Your task to perform on an android device: Turn off the flashlight Image 0: 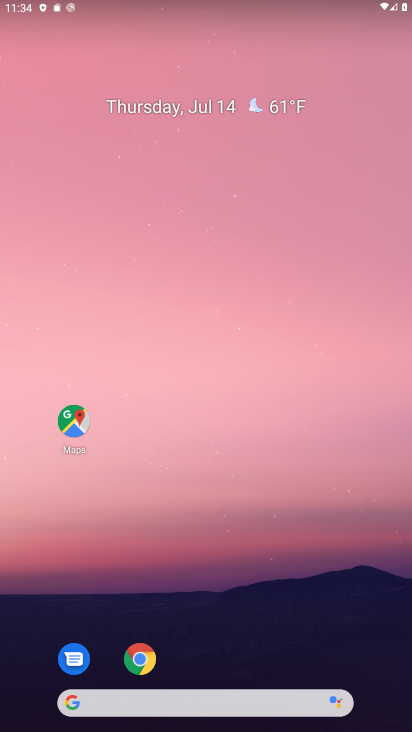
Step 0: drag from (190, 702) to (232, 122)
Your task to perform on an android device: Turn off the flashlight Image 1: 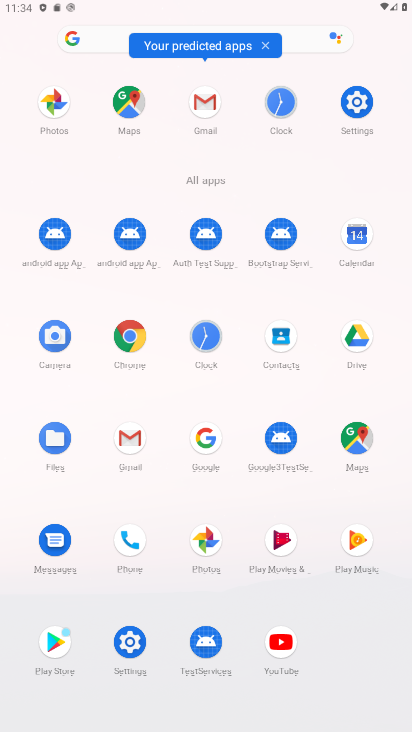
Step 1: click (357, 100)
Your task to perform on an android device: Turn off the flashlight Image 2: 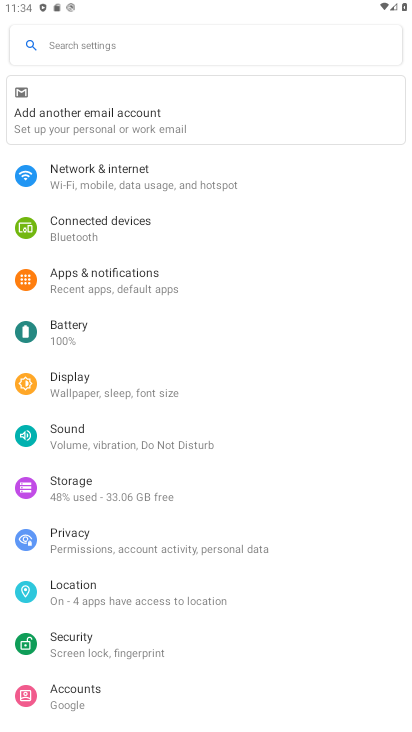
Step 2: click (105, 186)
Your task to perform on an android device: Turn off the flashlight Image 3: 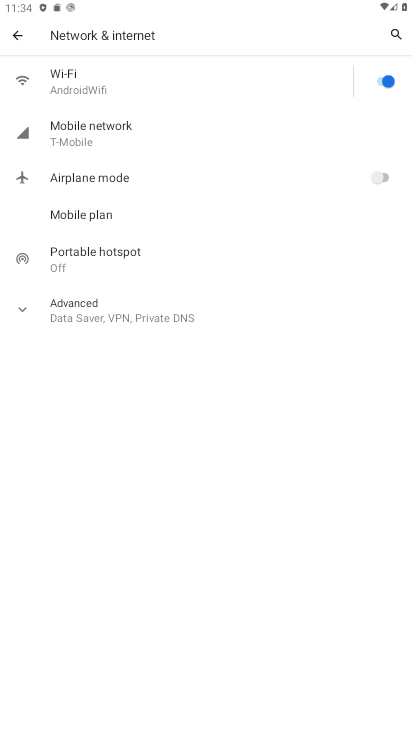
Step 3: press back button
Your task to perform on an android device: Turn off the flashlight Image 4: 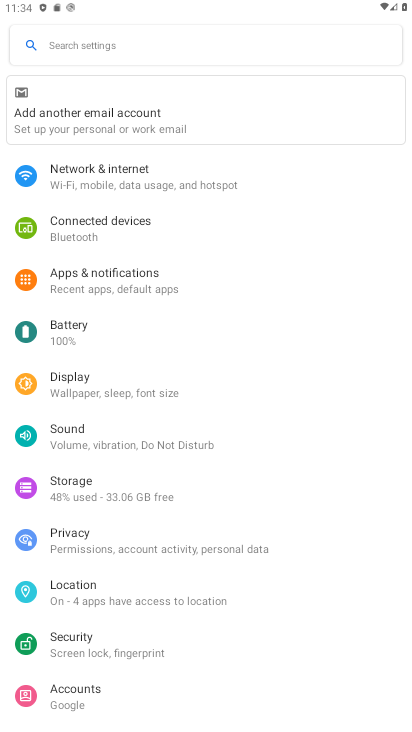
Step 4: click (99, 240)
Your task to perform on an android device: Turn off the flashlight Image 5: 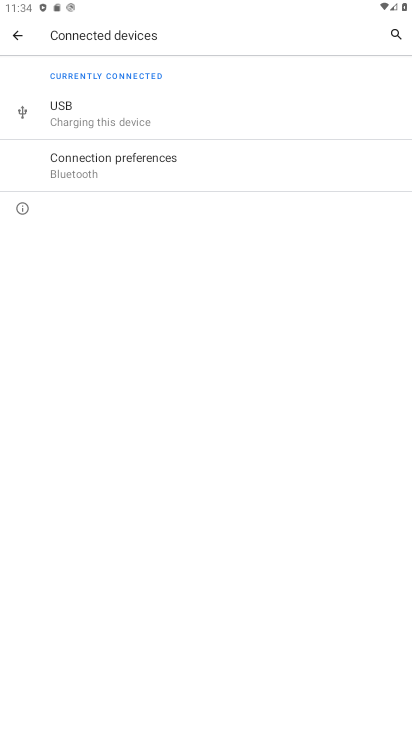
Step 5: press back button
Your task to perform on an android device: Turn off the flashlight Image 6: 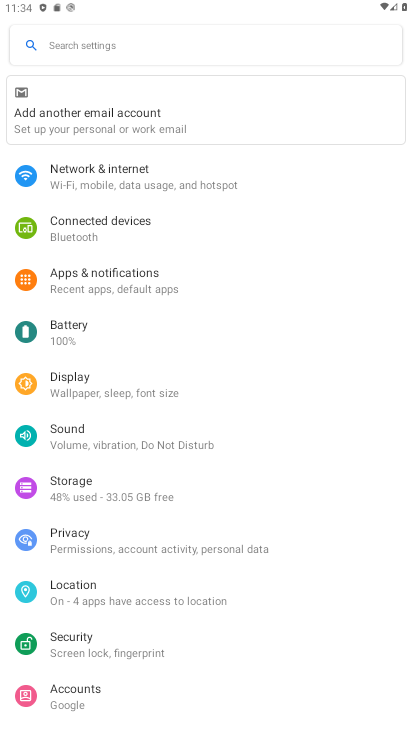
Step 6: drag from (89, 468) to (135, 376)
Your task to perform on an android device: Turn off the flashlight Image 7: 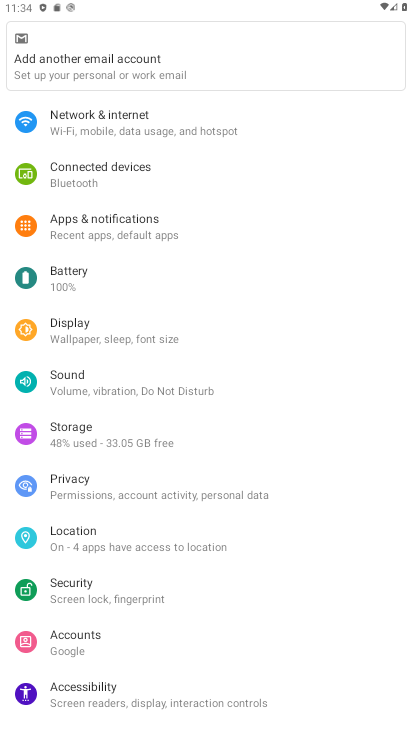
Step 7: click (85, 327)
Your task to perform on an android device: Turn off the flashlight Image 8: 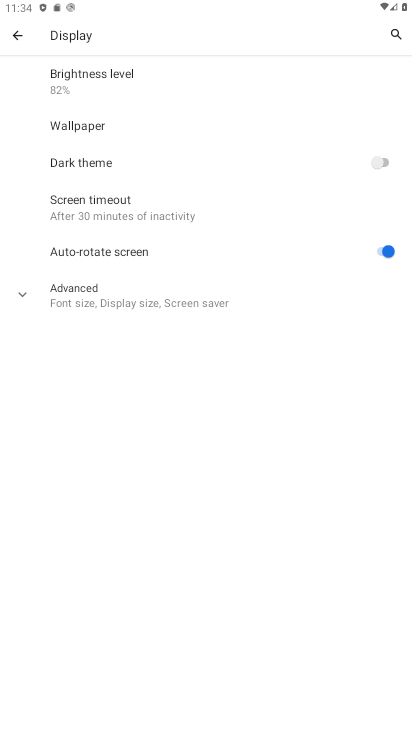
Step 8: click (111, 213)
Your task to perform on an android device: Turn off the flashlight Image 9: 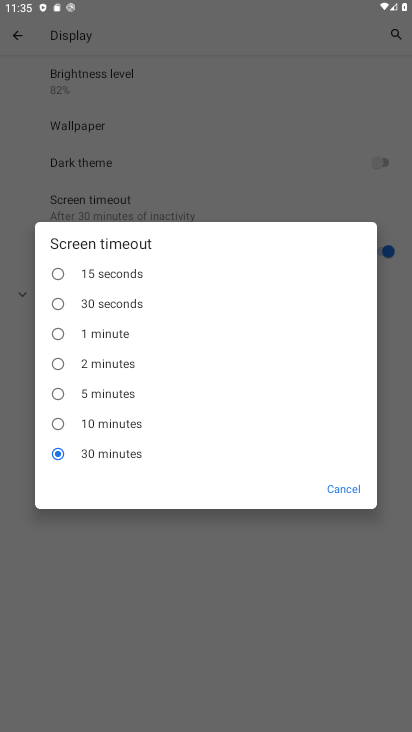
Step 9: click (344, 496)
Your task to perform on an android device: Turn off the flashlight Image 10: 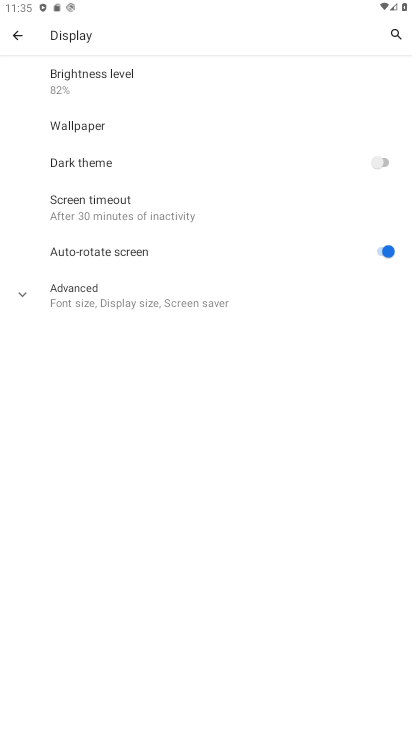
Step 10: task complete